Your task to perform on an android device: delete a single message in the gmail app Image 0: 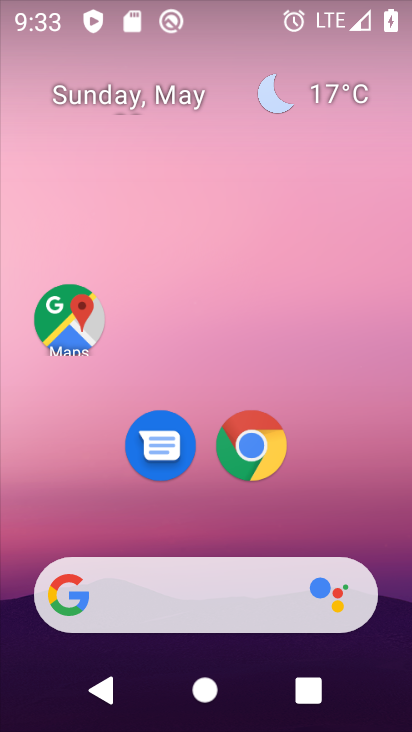
Step 0: drag from (182, 512) to (403, 62)
Your task to perform on an android device: delete a single message in the gmail app Image 1: 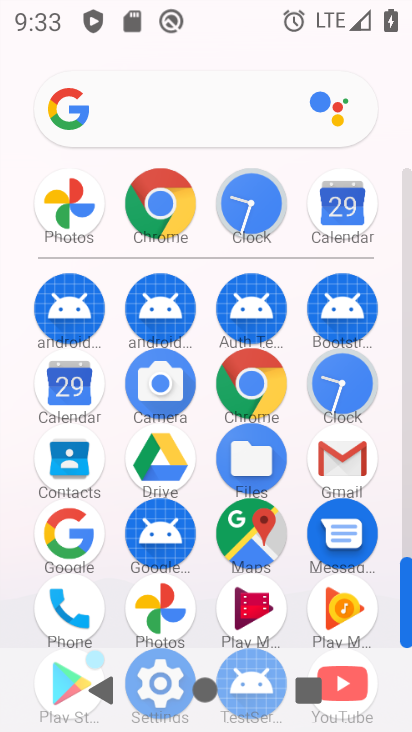
Step 1: click (329, 453)
Your task to perform on an android device: delete a single message in the gmail app Image 2: 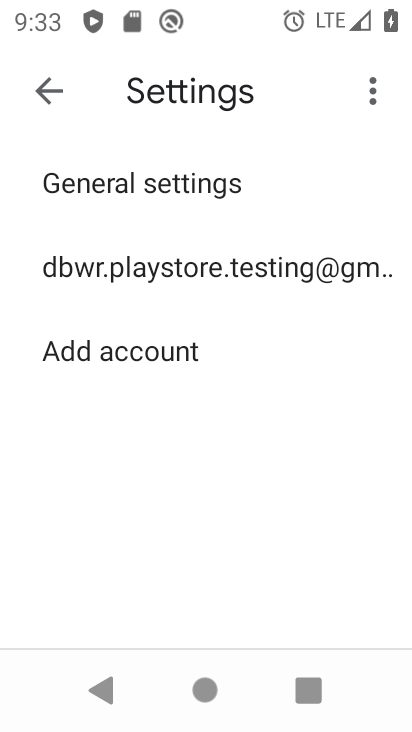
Step 2: click (46, 89)
Your task to perform on an android device: delete a single message in the gmail app Image 3: 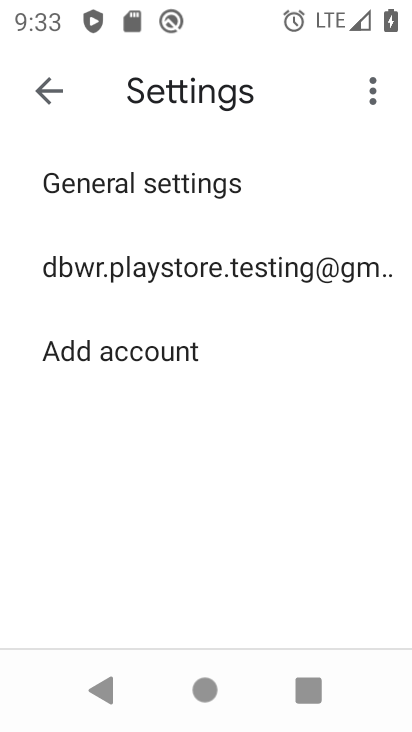
Step 3: click (60, 91)
Your task to perform on an android device: delete a single message in the gmail app Image 4: 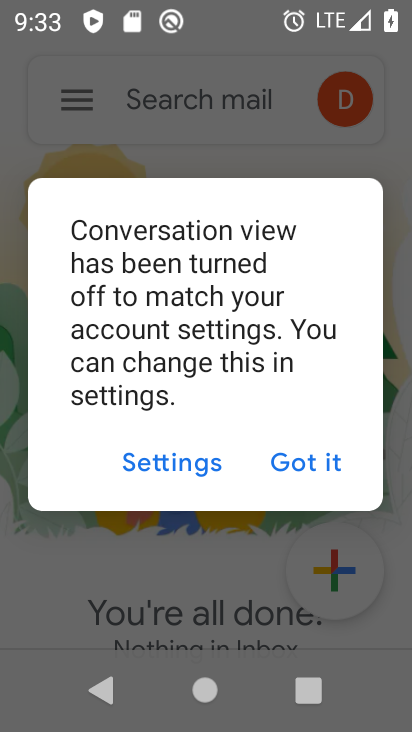
Step 4: click (282, 459)
Your task to perform on an android device: delete a single message in the gmail app Image 5: 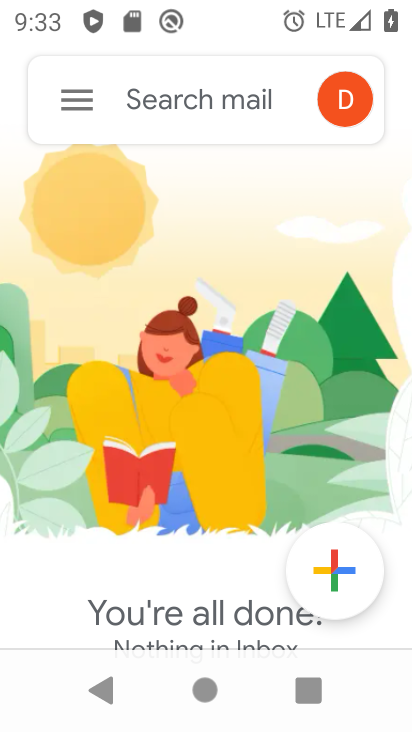
Step 5: drag from (188, 532) to (248, 231)
Your task to perform on an android device: delete a single message in the gmail app Image 6: 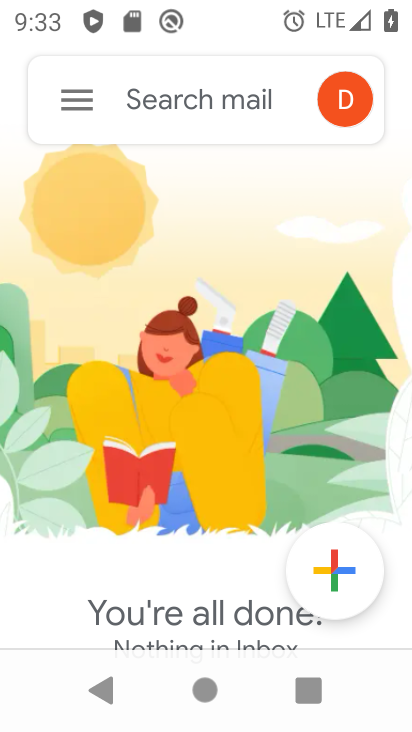
Step 6: drag from (194, 591) to (188, 286)
Your task to perform on an android device: delete a single message in the gmail app Image 7: 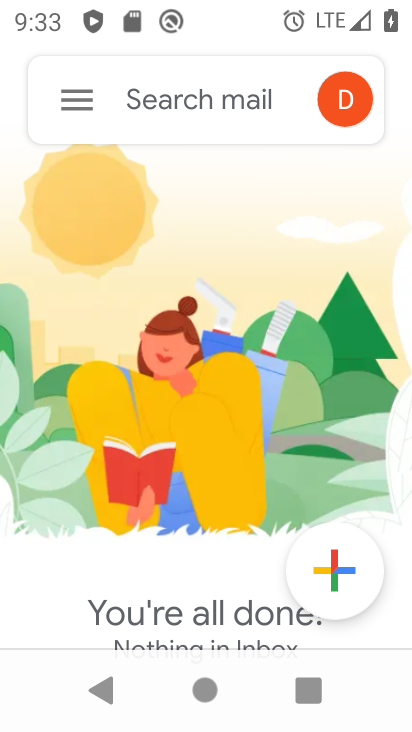
Step 7: click (69, 90)
Your task to perform on an android device: delete a single message in the gmail app Image 8: 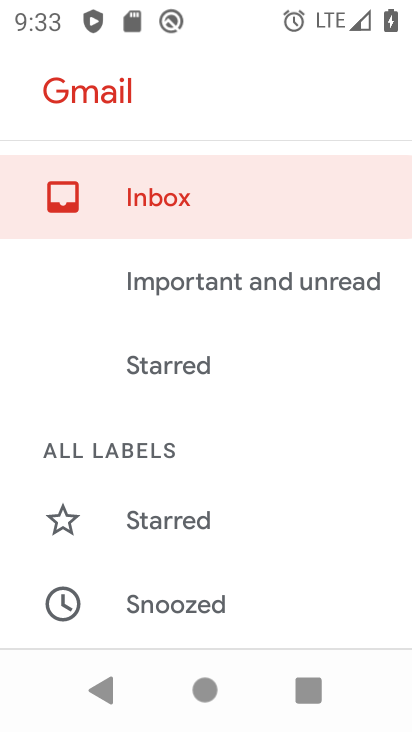
Step 8: click (172, 199)
Your task to perform on an android device: delete a single message in the gmail app Image 9: 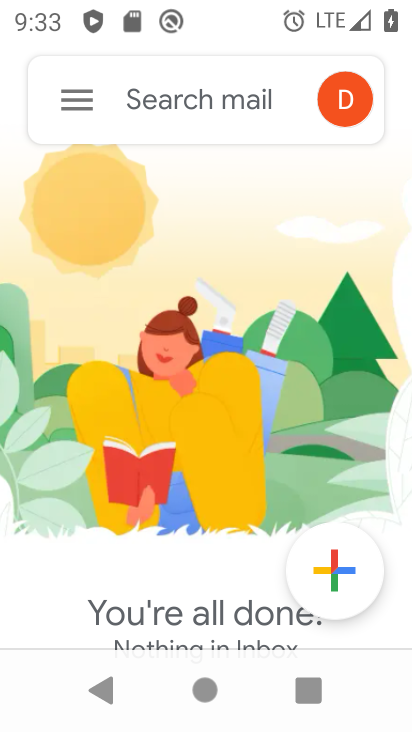
Step 9: task complete